Your task to perform on an android device: Find coffee shops on Maps Image 0: 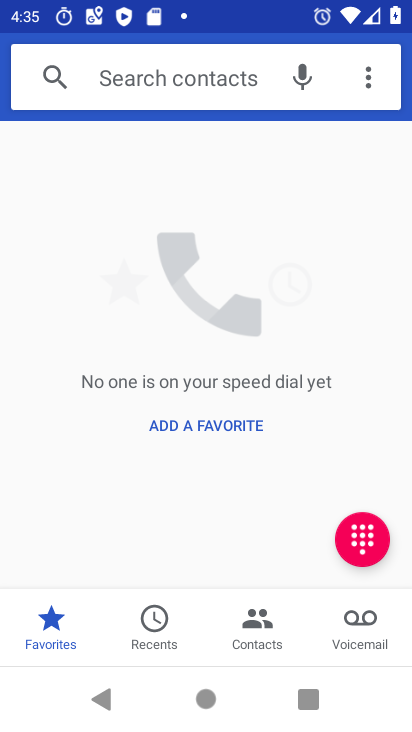
Step 0: press home button
Your task to perform on an android device: Find coffee shops on Maps Image 1: 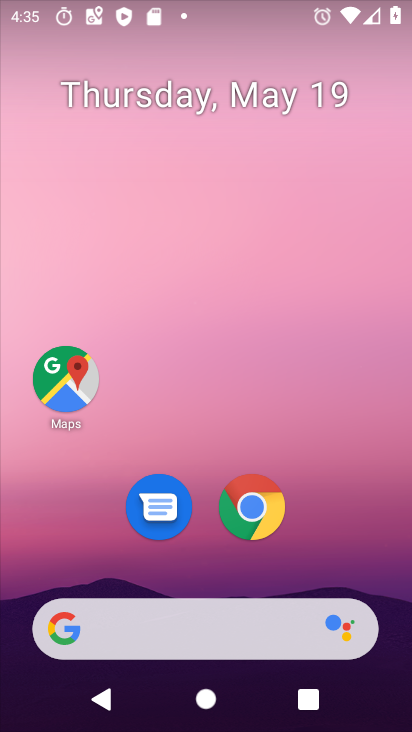
Step 1: click (50, 383)
Your task to perform on an android device: Find coffee shops on Maps Image 2: 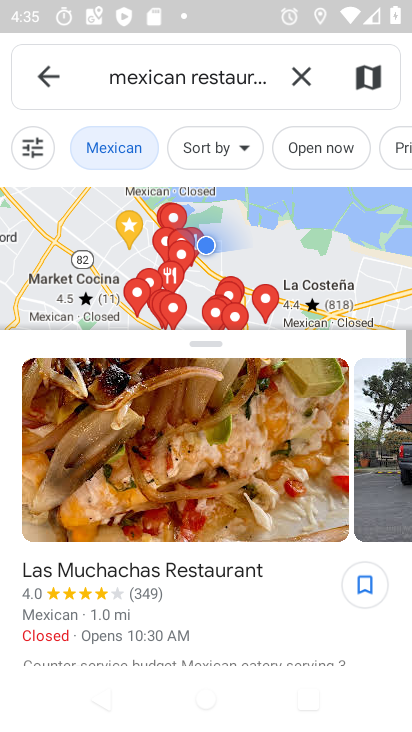
Step 2: click (304, 73)
Your task to perform on an android device: Find coffee shops on Maps Image 3: 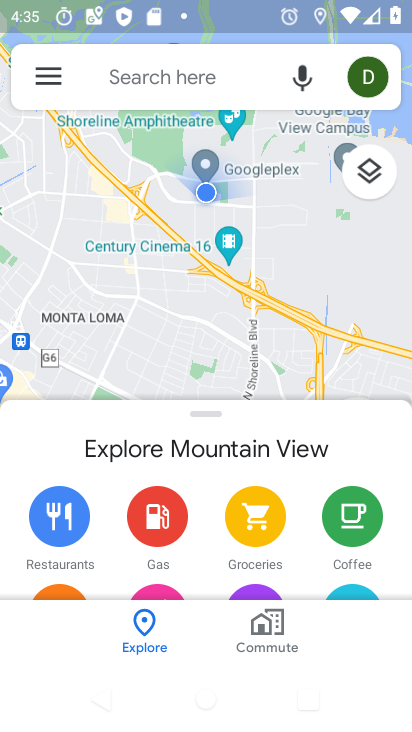
Step 3: click (113, 71)
Your task to perform on an android device: Find coffee shops on Maps Image 4: 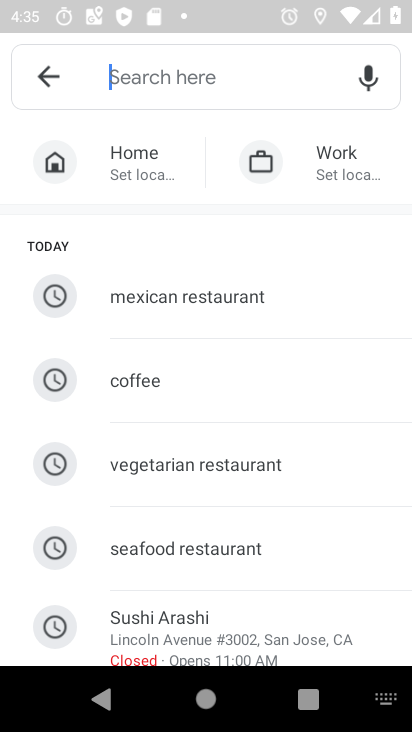
Step 4: type "coffee shops"
Your task to perform on an android device: Find coffee shops on Maps Image 5: 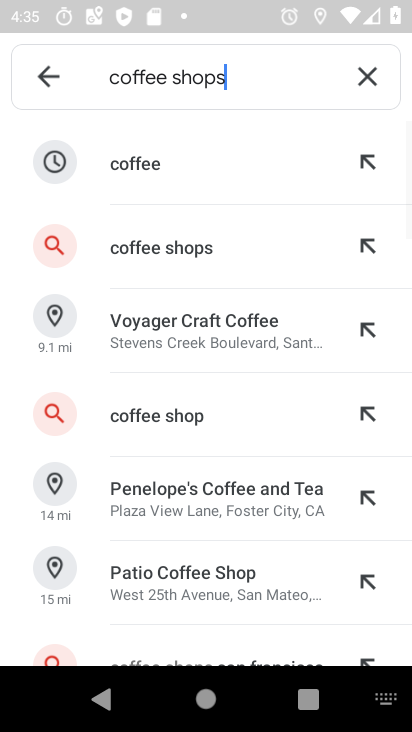
Step 5: click (150, 248)
Your task to perform on an android device: Find coffee shops on Maps Image 6: 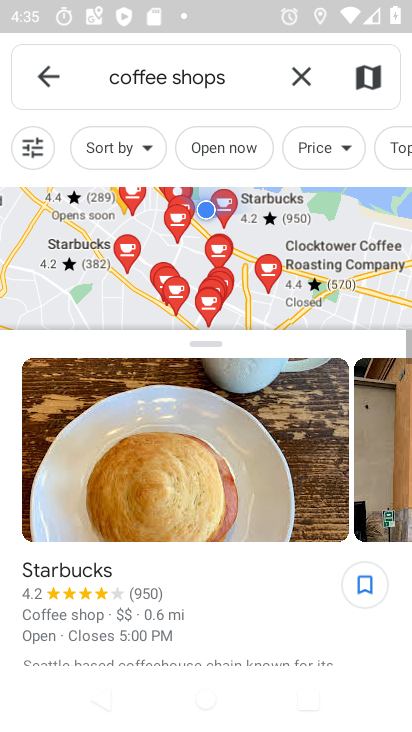
Step 6: task complete